Your task to perform on an android device: toggle priority inbox in the gmail app Image 0: 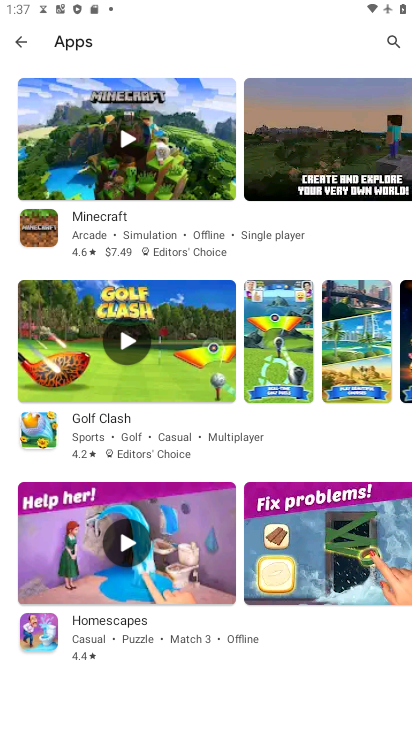
Step 0: press home button
Your task to perform on an android device: toggle priority inbox in the gmail app Image 1: 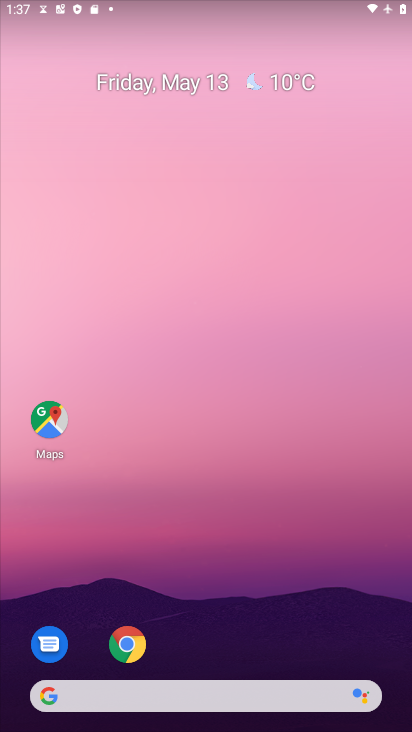
Step 1: drag from (204, 731) to (211, 205)
Your task to perform on an android device: toggle priority inbox in the gmail app Image 2: 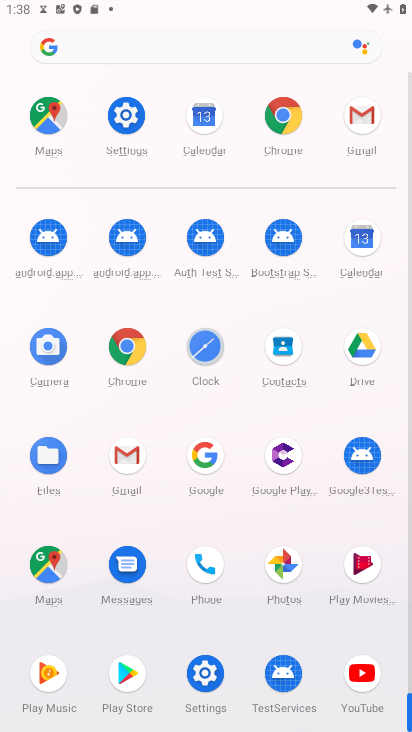
Step 2: click (124, 454)
Your task to perform on an android device: toggle priority inbox in the gmail app Image 3: 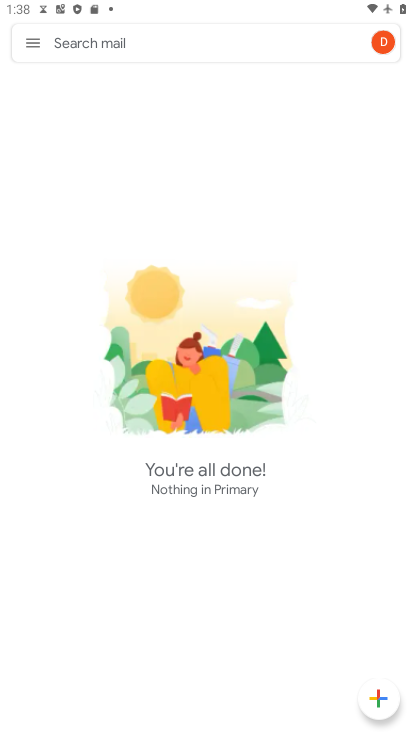
Step 3: click (32, 45)
Your task to perform on an android device: toggle priority inbox in the gmail app Image 4: 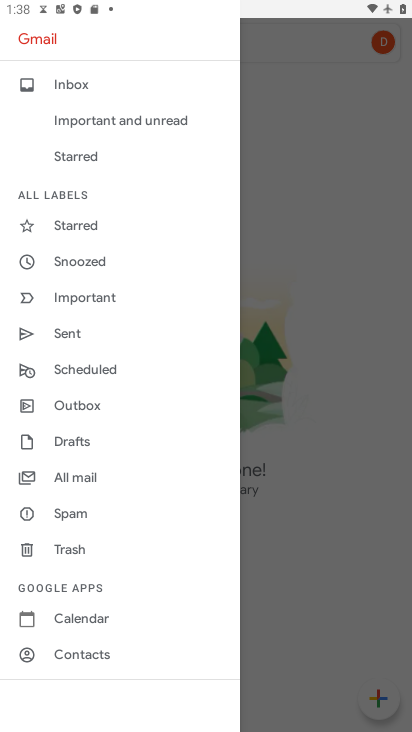
Step 4: drag from (112, 606) to (120, 270)
Your task to perform on an android device: toggle priority inbox in the gmail app Image 5: 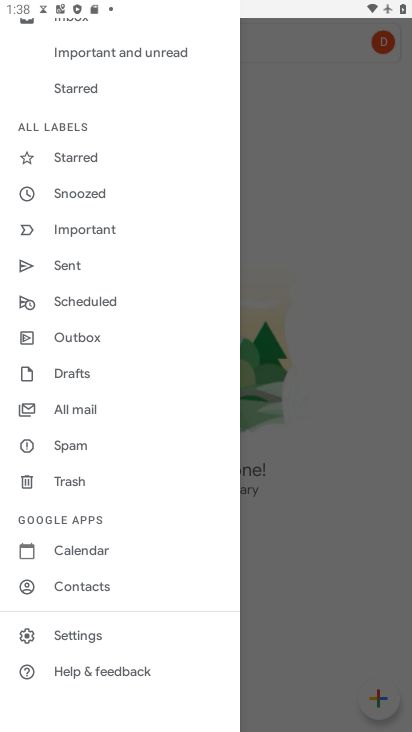
Step 5: click (71, 636)
Your task to perform on an android device: toggle priority inbox in the gmail app Image 6: 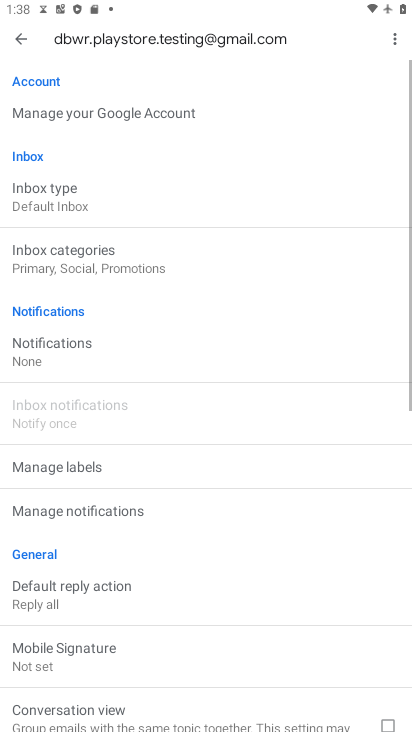
Step 6: drag from (141, 153) to (160, 507)
Your task to perform on an android device: toggle priority inbox in the gmail app Image 7: 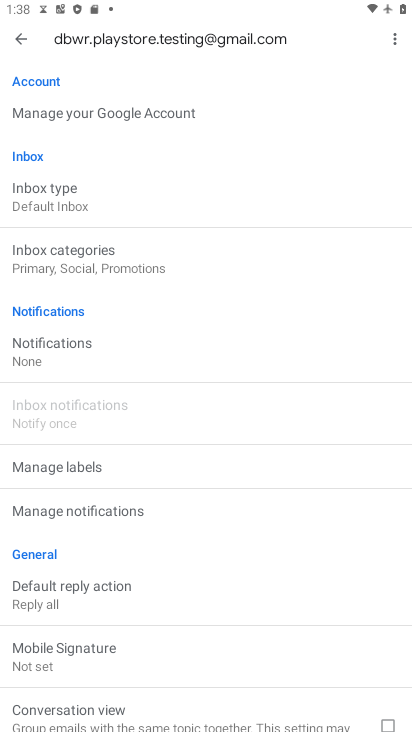
Step 7: click (57, 200)
Your task to perform on an android device: toggle priority inbox in the gmail app Image 8: 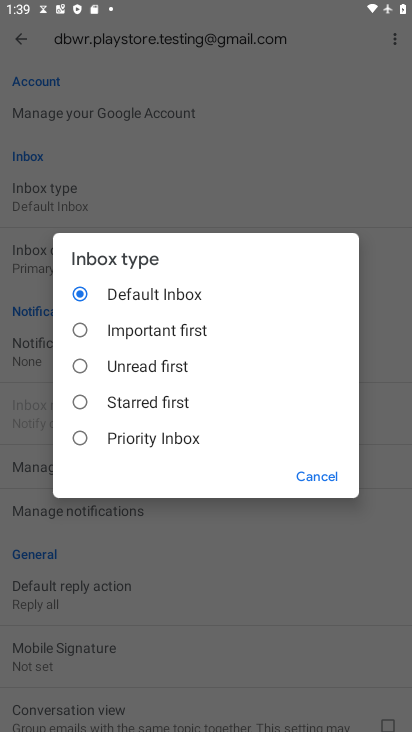
Step 8: click (79, 436)
Your task to perform on an android device: toggle priority inbox in the gmail app Image 9: 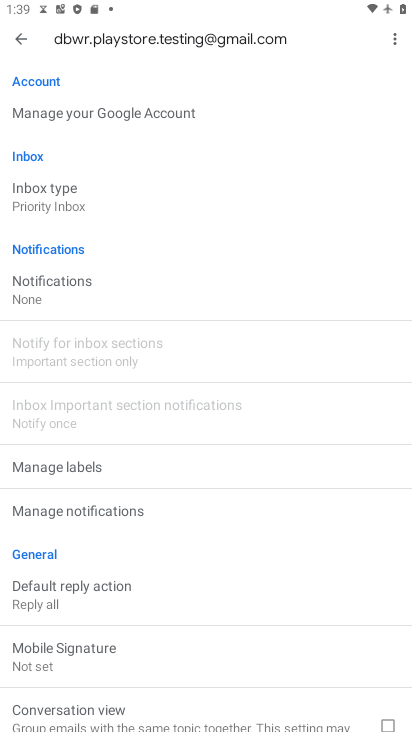
Step 9: task complete